Your task to perform on an android device: Open internet settings Image 0: 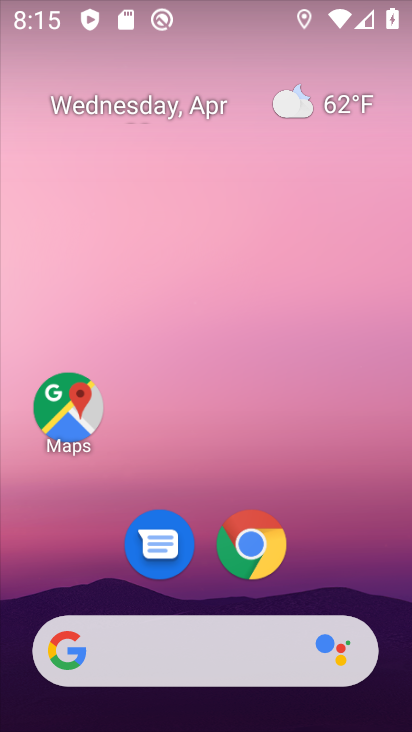
Step 0: drag from (309, 544) to (158, 135)
Your task to perform on an android device: Open internet settings Image 1: 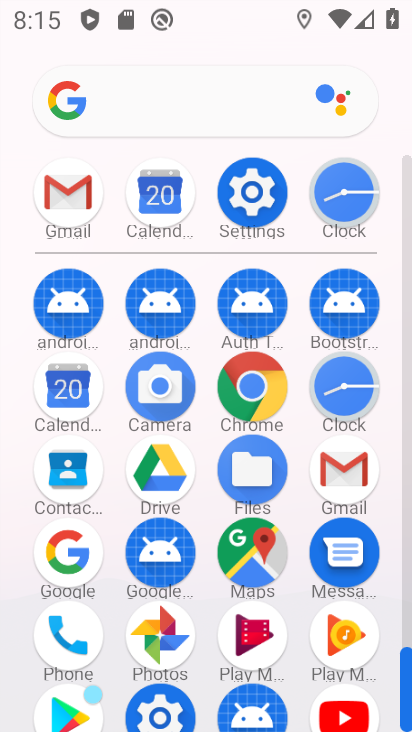
Step 1: click (249, 197)
Your task to perform on an android device: Open internet settings Image 2: 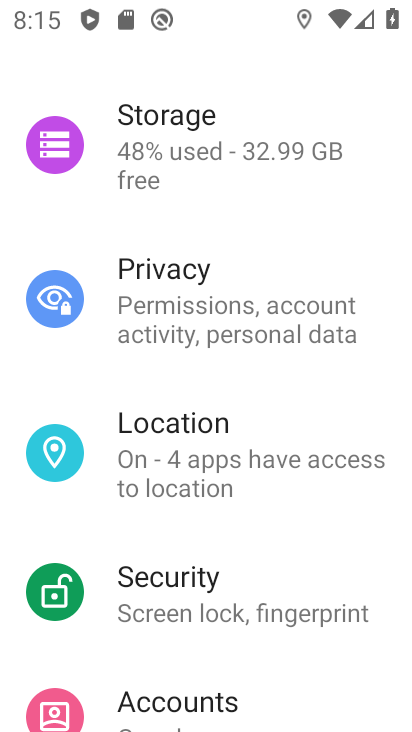
Step 2: drag from (268, 157) to (242, 641)
Your task to perform on an android device: Open internet settings Image 3: 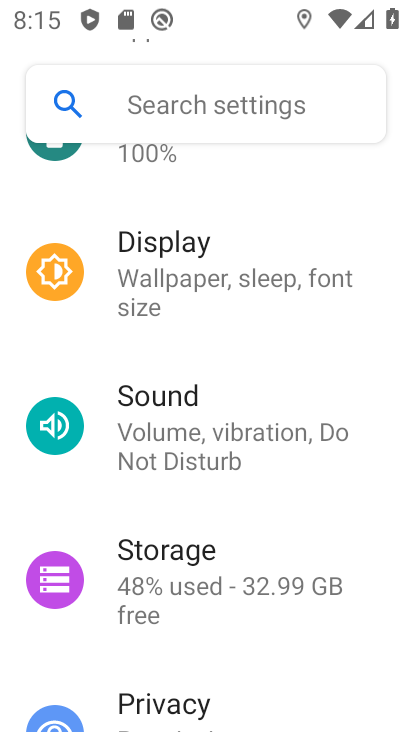
Step 3: drag from (349, 230) to (319, 681)
Your task to perform on an android device: Open internet settings Image 4: 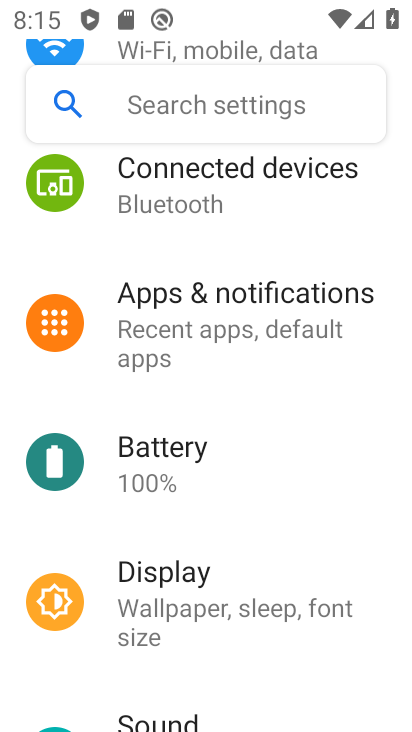
Step 4: drag from (334, 321) to (309, 600)
Your task to perform on an android device: Open internet settings Image 5: 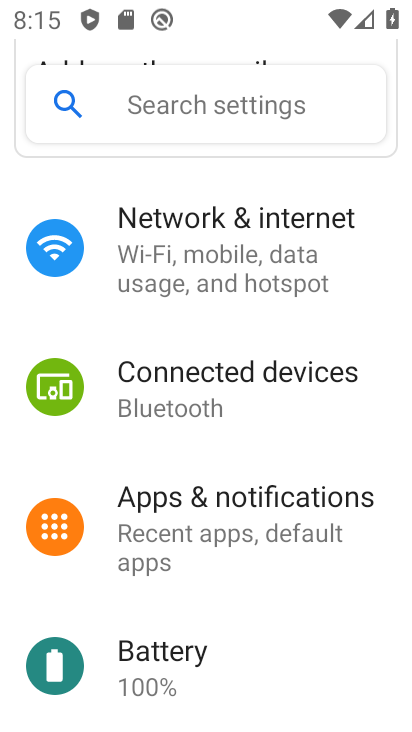
Step 5: click (218, 278)
Your task to perform on an android device: Open internet settings Image 6: 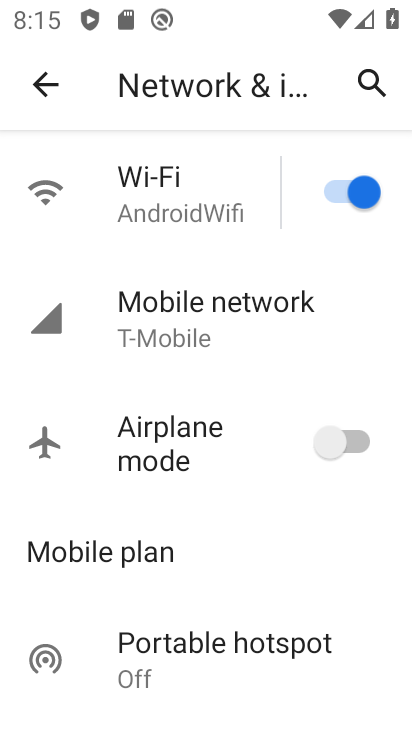
Step 6: task complete